Your task to perform on an android device: turn on improve location accuracy Image 0: 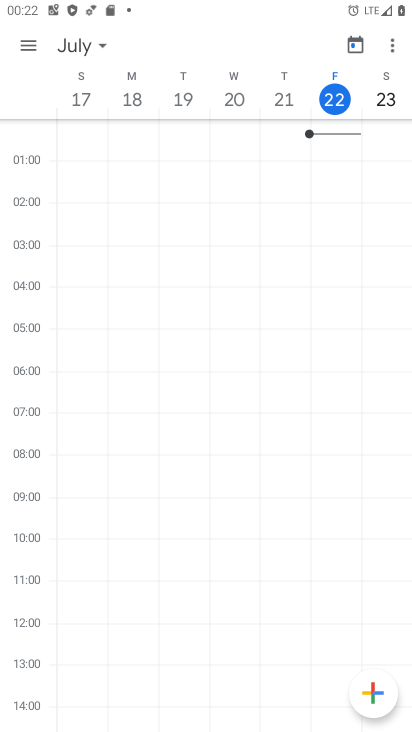
Step 0: press home button
Your task to perform on an android device: turn on improve location accuracy Image 1: 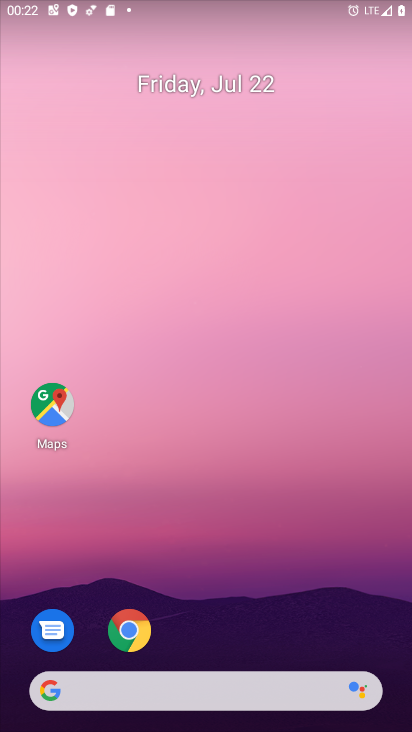
Step 1: drag from (274, 629) to (118, 132)
Your task to perform on an android device: turn on improve location accuracy Image 2: 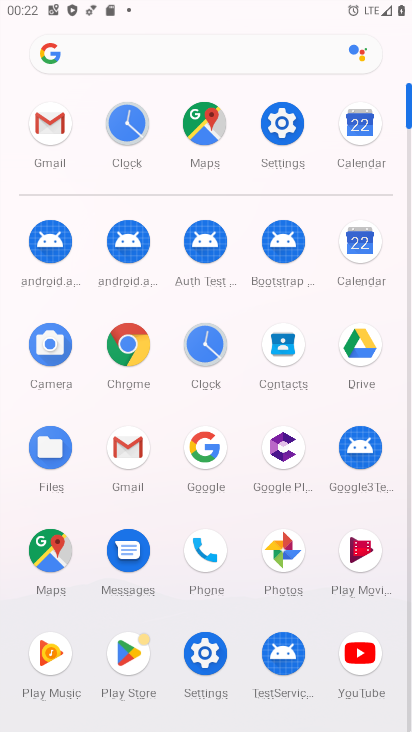
Step 2: click (277, 126)
Your task to perform on an android device: turn on improve location accuracy Image 3: 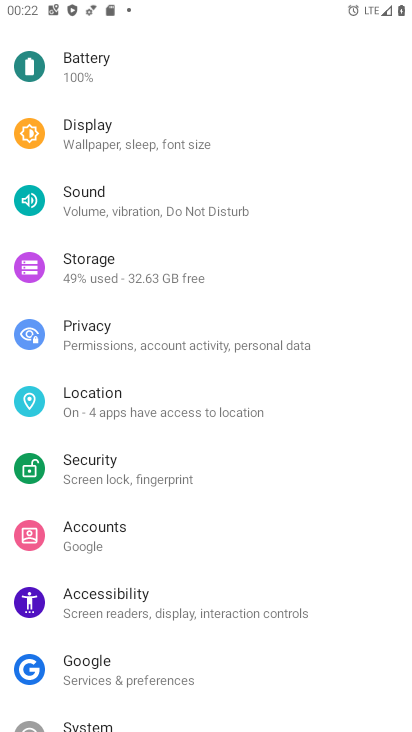
Step 3: click (128, 417)
Your task to perform on an android device: turn on improve location accuracy Image 4: 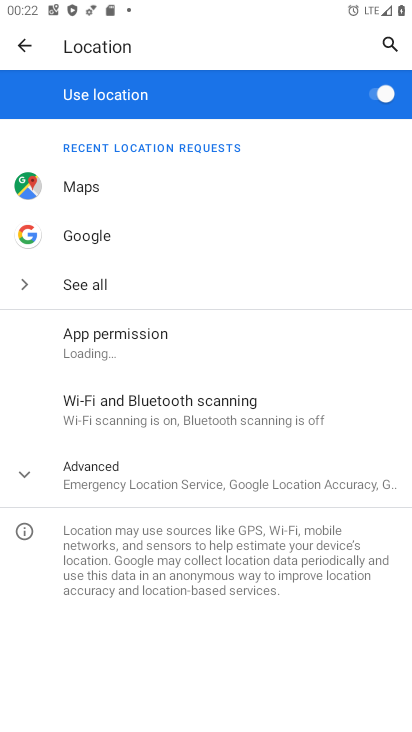
Step 4: click (125, 480)
Your task to perform on an android device: turn on improve location accuracy Image 5: 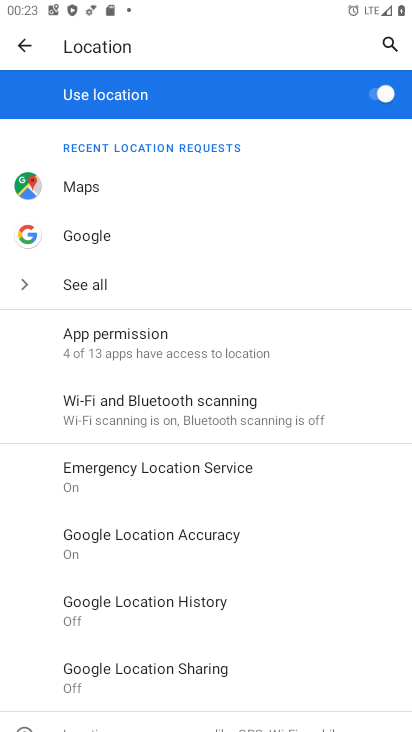
Step 5: click (162, 531)
Your task to perform on an android device: turn on improve location accuracy Image 6: 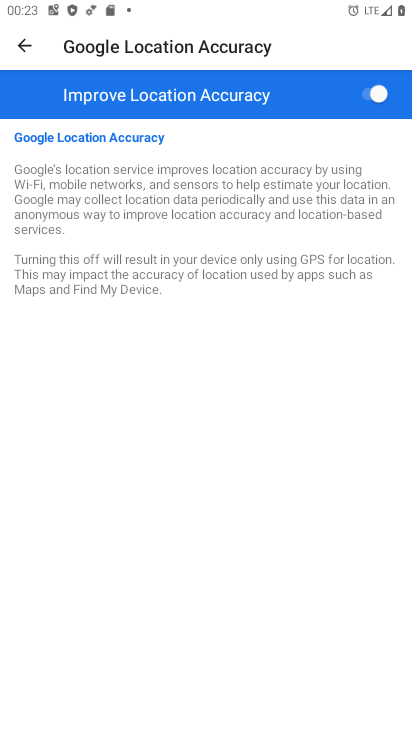
Step 6: task complete